Your task to perform on an android device: create a new album in the google photos Image 0: 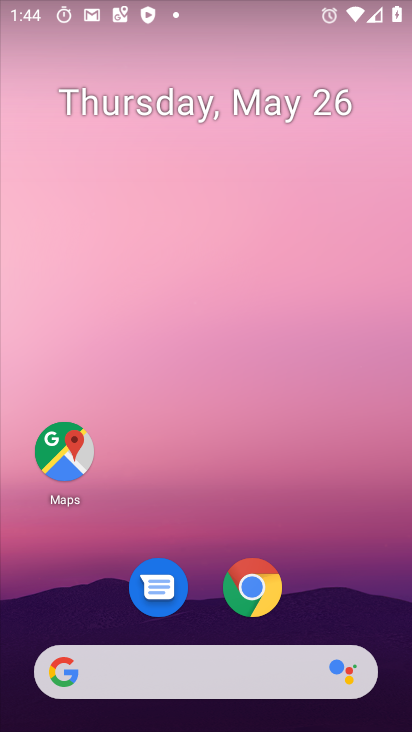
Step 0: drag from (246, 690) to (232, 205)
Your task to perform on an android device: create a new album in the google photos Image 1: 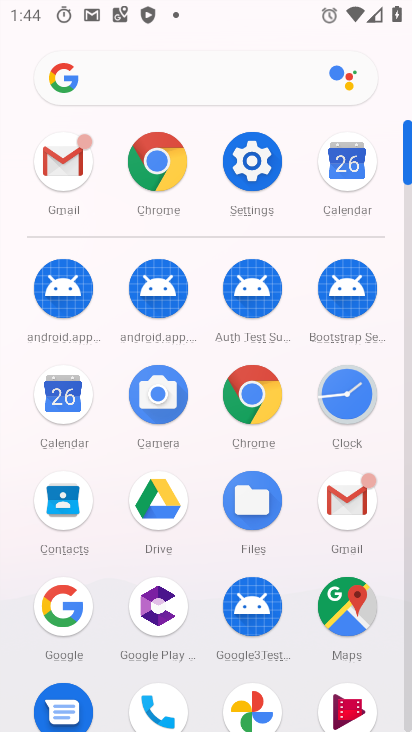
Step 1: click (232, 714)
Your task to perform on an android device: create a new album in the google photos Image 2: 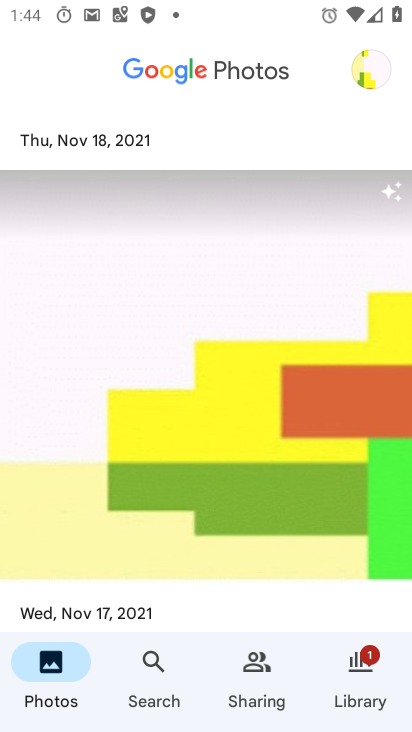
Step 2: click (231, 411)
Your task to perform on an android device: create a new album in the google photos Image 3: 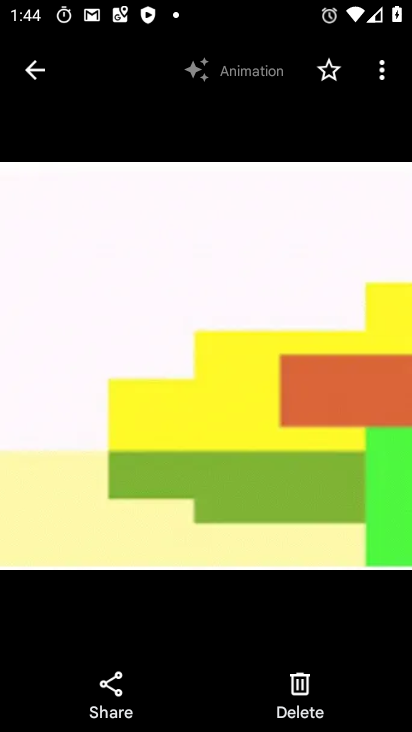
Step 3: click (391, 97)
Your task to perform on an android device: create a new album in the google photos Image 4: 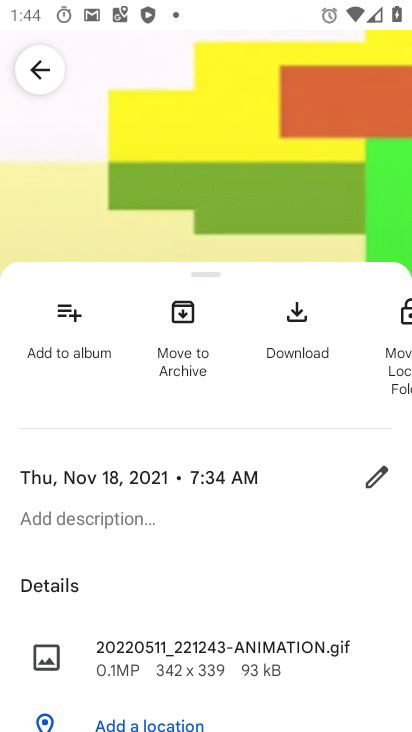
Step 4: click (53, 333)
Your task to perform on an android device: create a new album in the google photos Image 5: 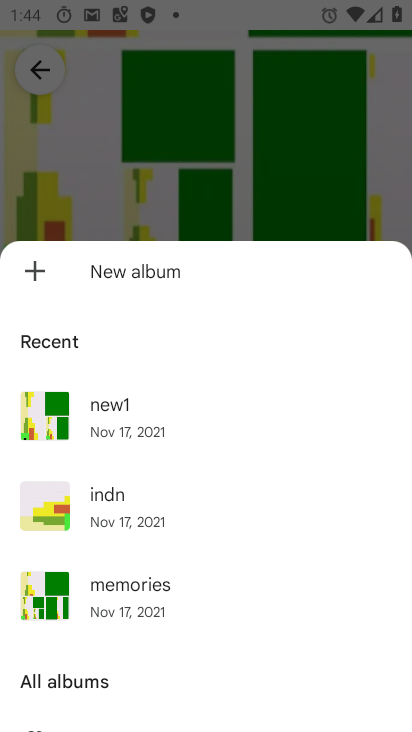
Step 5: click (51, 269)
Your task to perform on an android device: create a new album in the google photos Image 6: 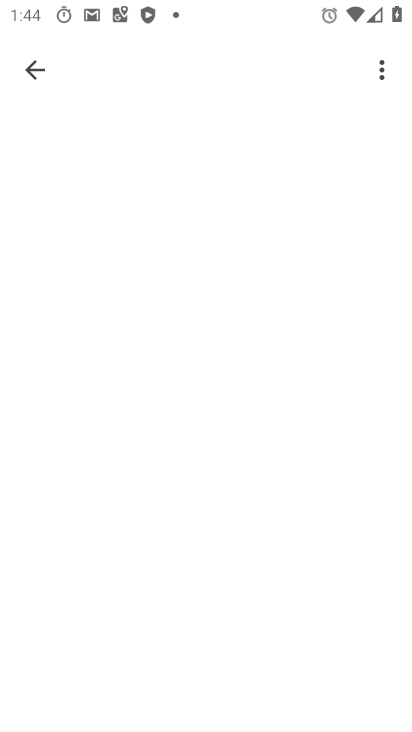
Step 6: click (36, 269)
Your task to perform on an android device: create a new album in the google photos Image 7: 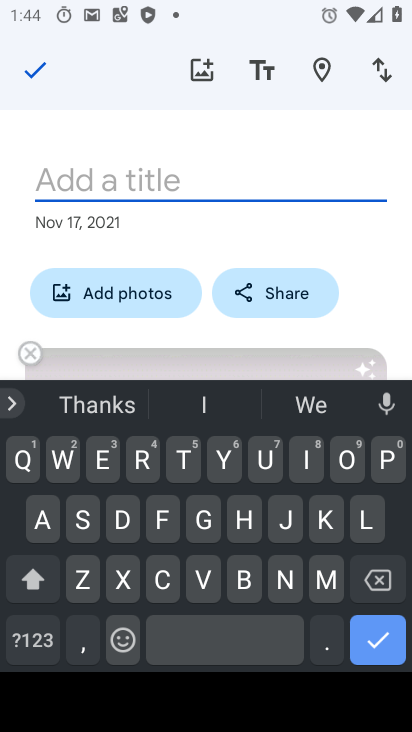
Step 7: click (156, 582)
Your task to perform on an android device: create a new album in the google photos Image 8: 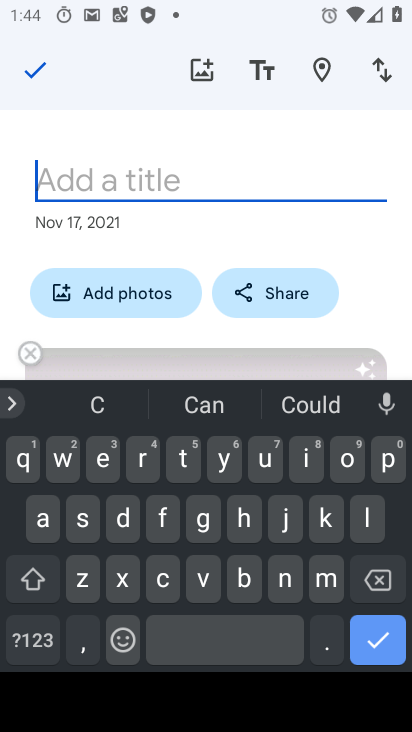
Step 8: drag from (228, 506) to (185, 488)
Your task to perform on an android device: create a new album in the google photos Image 9: 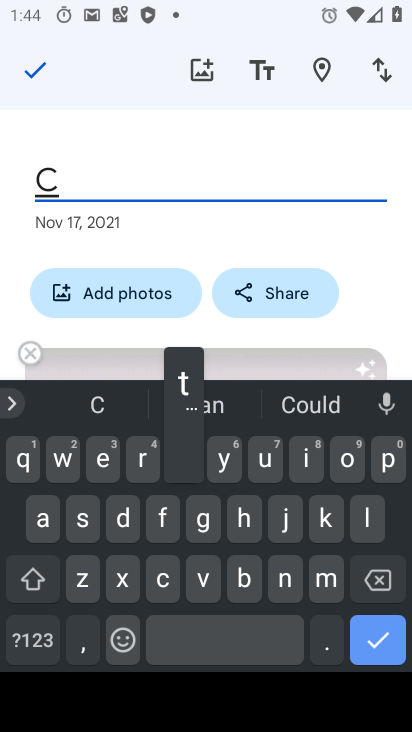
Step 9: click (136, 500)
Your task to perform on an android device: create a new album in the google photos Image 10: 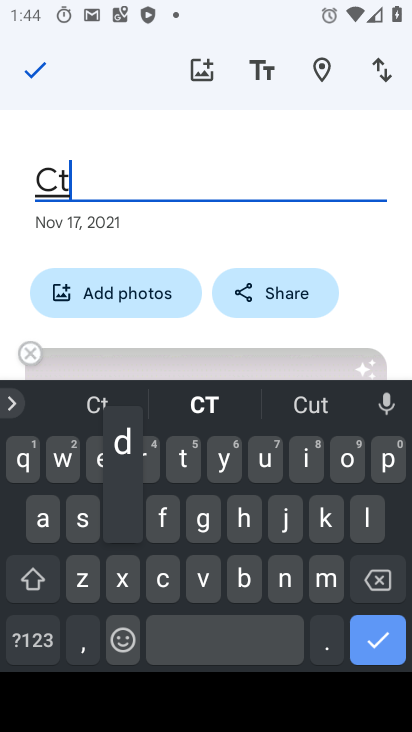
Step 10: click (139, 506)
Your task to perform on an android device: create a new album in the google photos Image 11: 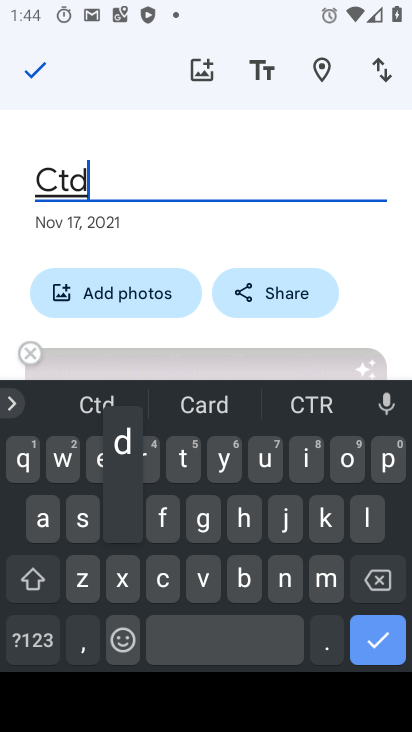
Step 11: click (234, 536)
Your task to perform on an android device: create a new album in the google photos Image 12: 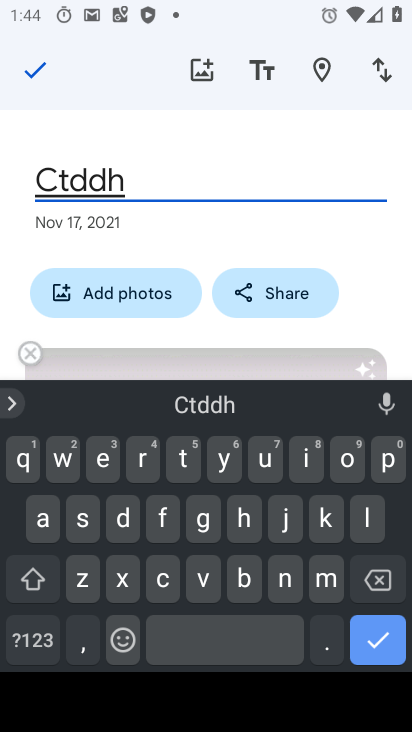
Step 12: click (38, 62)
Your task to perform on an android device: create a new album in the google photos Image 13: 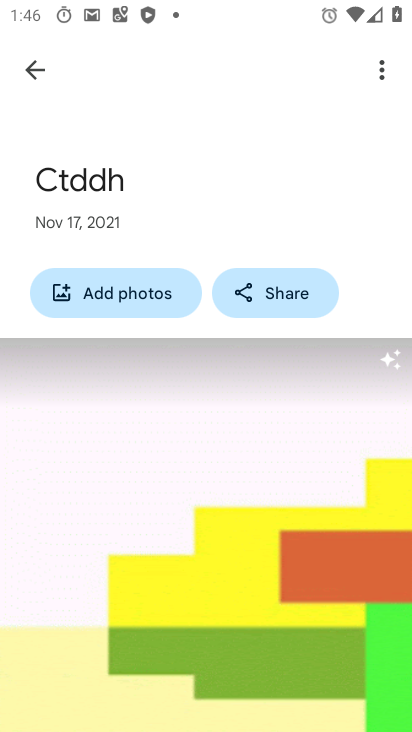
Step 13: task complete